Your task to perform on an android device: turn off notifications settings in the gmail app Image 0: 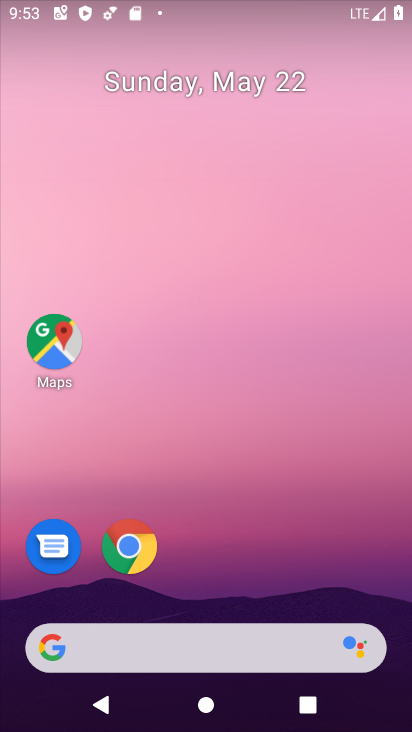
Step 0: drag from (212, 589) to (196, 245)
Your task to perform on an android device: turn off notifications settings in the gmail app Image 1: 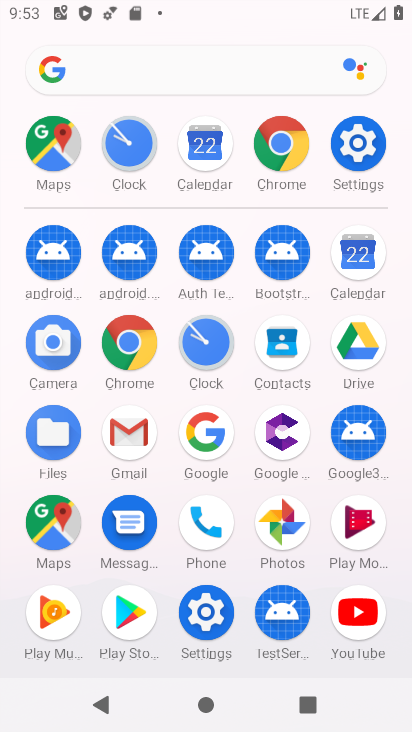
Step 1: click (154, 86)
Your task to perform on an android device: turn off notifications settings in the gmail app Image 2: 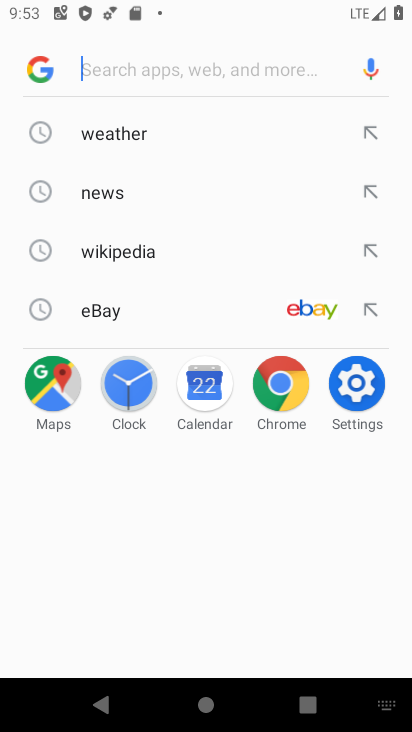
Step 2: press home button
Your task to perform on an android device: turn off notifications settings in the gmail app Image 3: 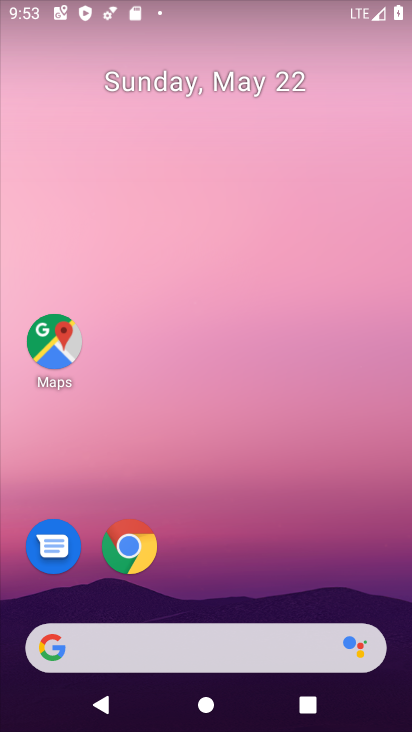
Step 3: drag from (172, 607) to (206, 167)
Your task to perform on an android device: turn off notifications settings in the gmail app Image 4: 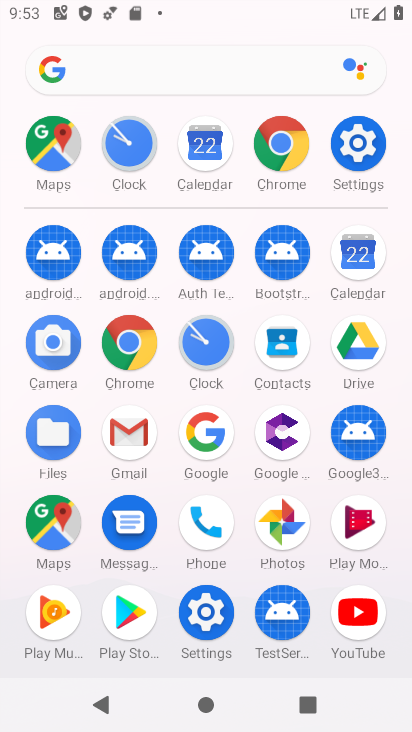
Step 4: click (131, 427)
Your task to perform on an android device: turn off notifications settings in the gmail app Image 5: 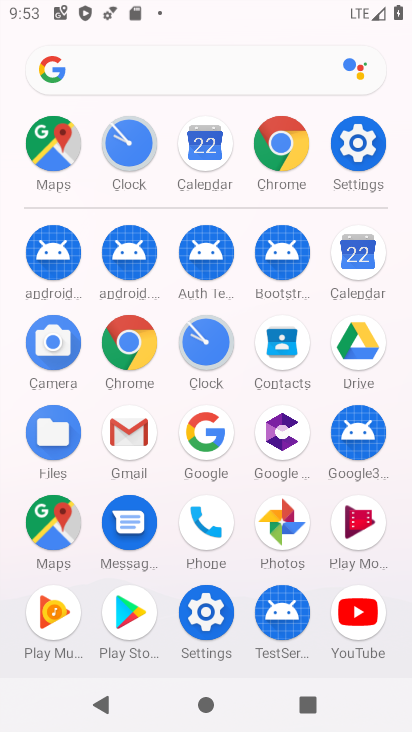
Step 5: click (131, 427)
Your task to perform on an android device: turn off notifications settings in the gmail app Image 6: 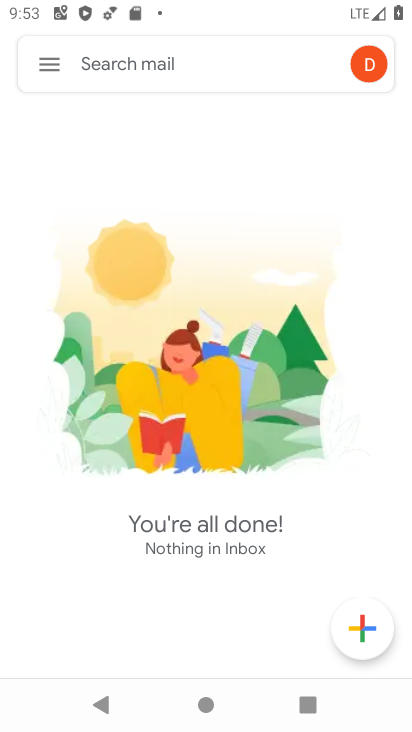
Step 6: click (38, 62)
Your task to perform on an android device: turn off notifications settings in the gmail app Image 7: 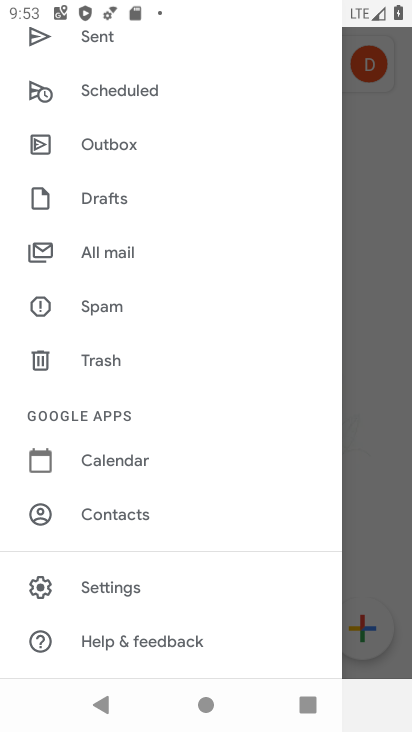
Step 7: click (125, 586)
Your task to perform on an android device: turn off notifications settings in the gmail app Image 8: 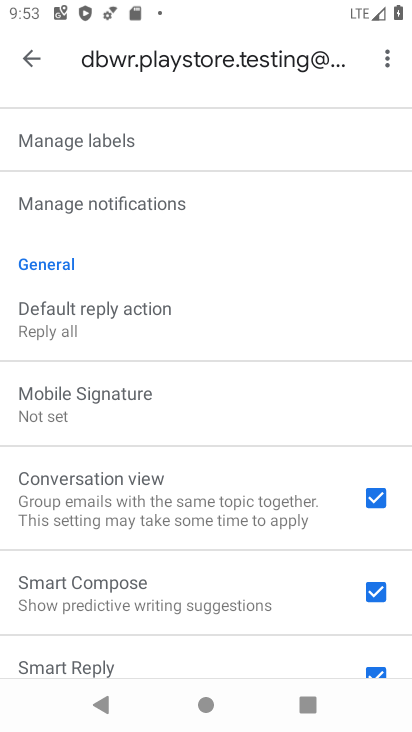
Step 8: drag from (231, 198) to (278, 731)
Your task to perform on an android device: turn off notifications settings in the gmail app Image 9: 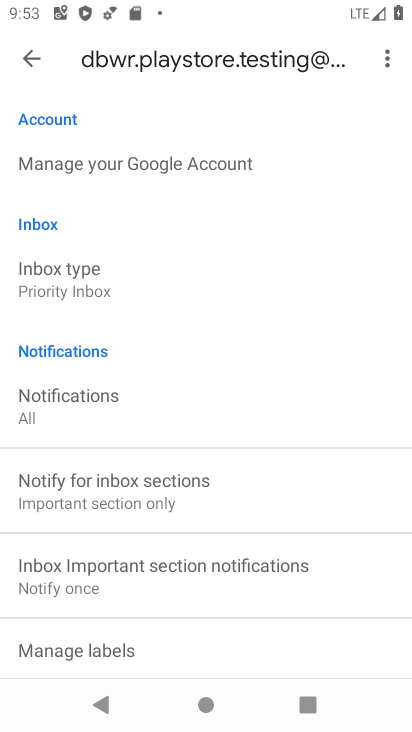
Step 9: drag from (212, 578) to (261, 189)
Your task to perform on an android device: turn off notifications settings in the gmail app Image 10: 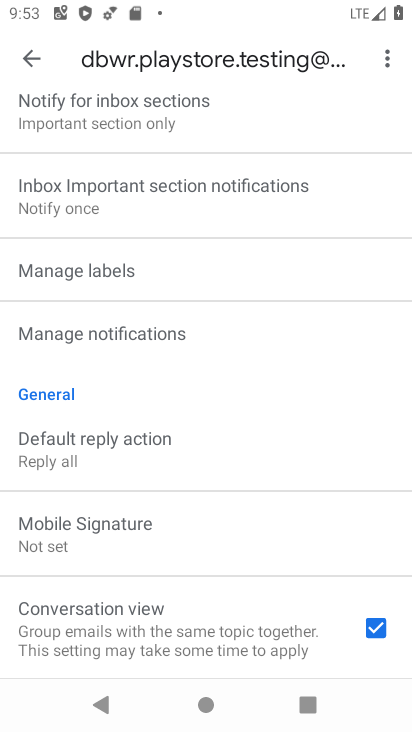
Step 10: click (153, 328)
Your task to perform on an android device: turn off notifications settings in the gmail app Image 11: 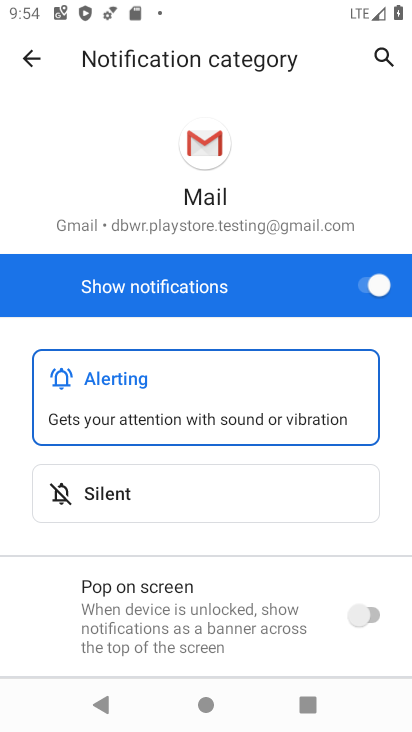
Step 11: click (369, 287)
Your task to perform on an android device: turn off notifications settings in the gmail app Image 12: 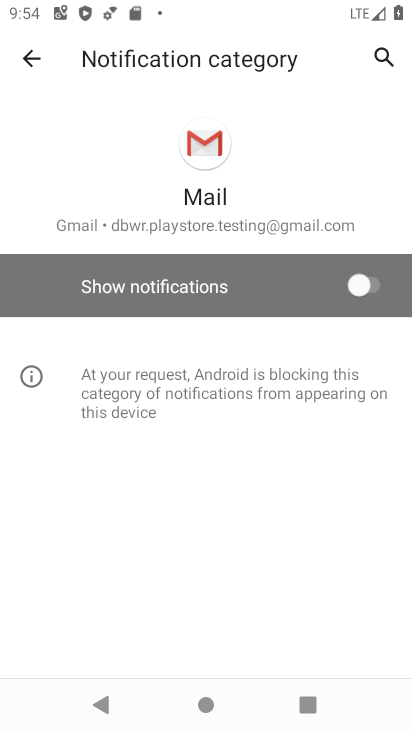
Step 12: task complete